Your task to perform on an android device: delete location history Image 0: 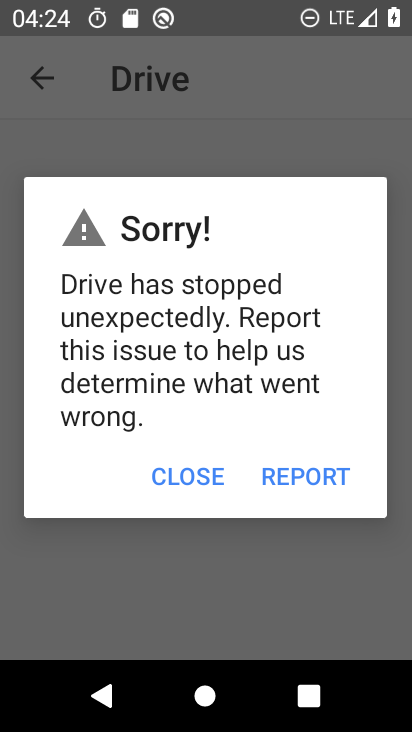
Step 0: click (197, 494)
Your task to perform on an android device: delete location history Image 1: 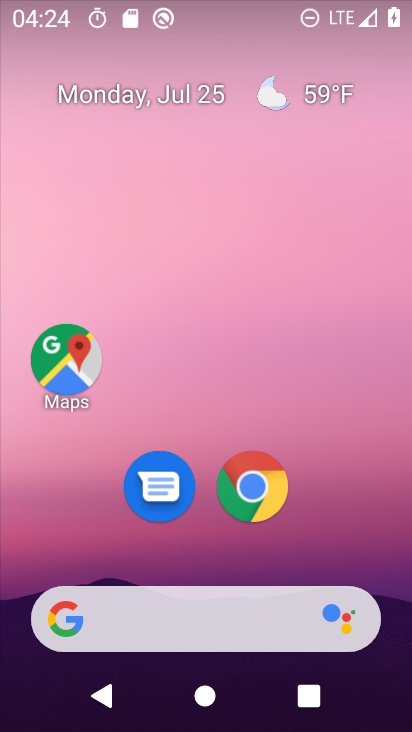
Step 1: press back button
Your task to perform on an android device: delete location history Image 2: 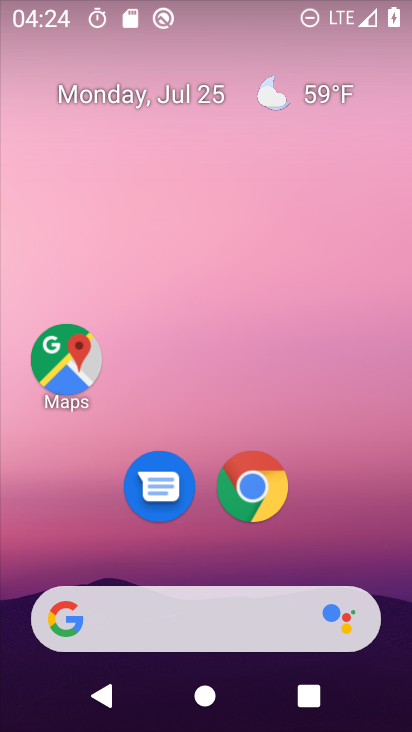
Step 2: click (60, 358)
Your task to perform on an android device: delete location history Image 3: 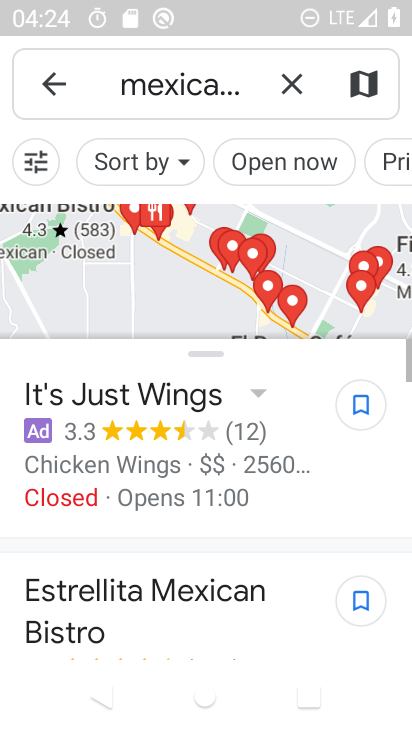
Step 3: click (57, 86)
Your task to perform on an android device: delete location history Image 4: 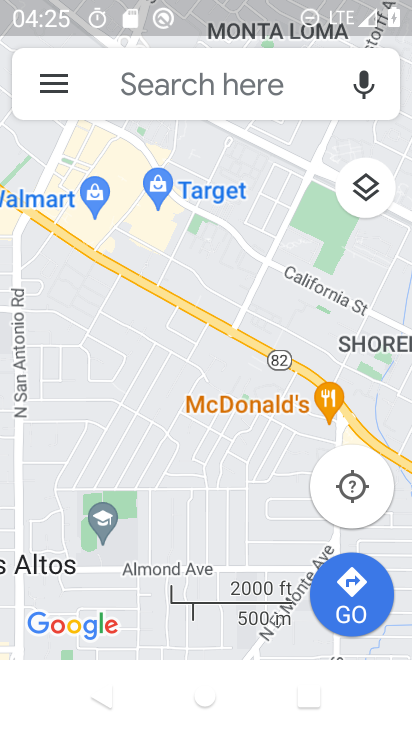
Step 4: click (62, 78)
Your task to perform on an android device: delete location history Image 5: 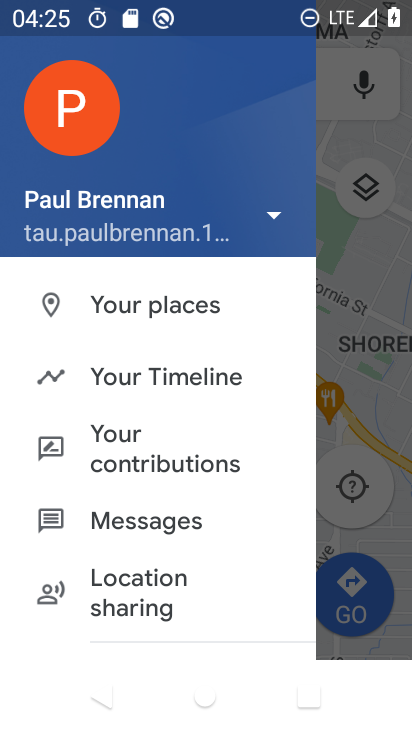
Step 5: click (168, 376)
Your task to perform on an android device: delete location history Image 6: 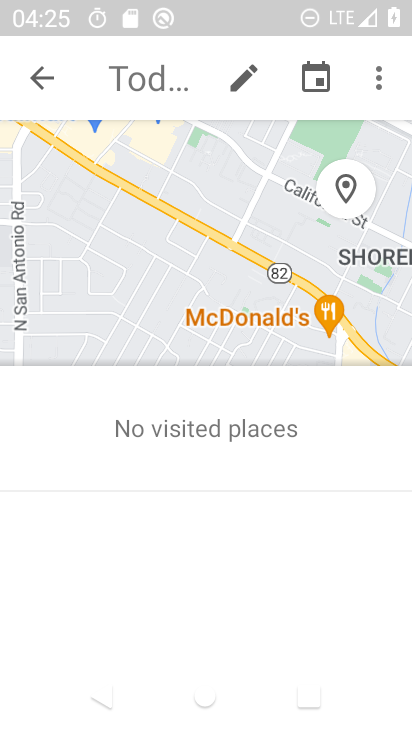
Step 6: click (368, 81)
Your task to perform on an android device: delete location history Image 7: 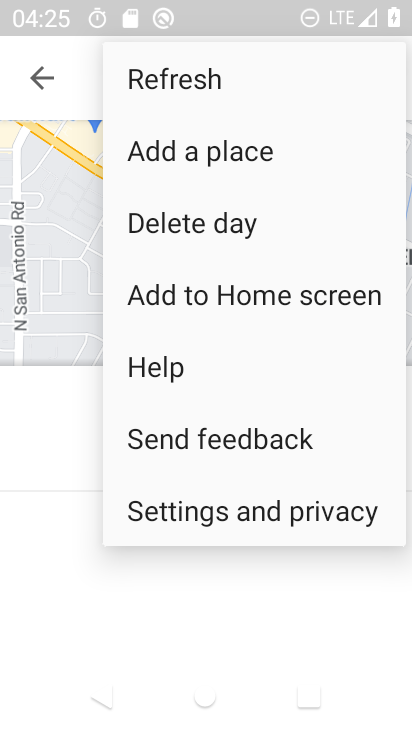
Step 7: click (189, 508)
Your task to perform on an android device: delete location history Image 8: 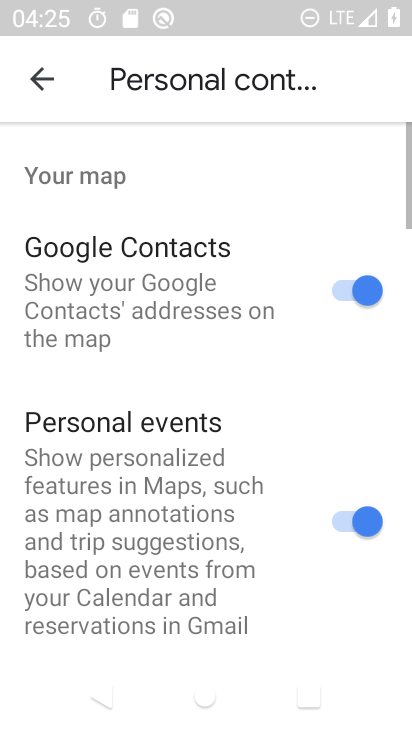
Step 8: drag from (142, 625) to (315, 6)
Your task to perform on an android device: delete location history Image 9: 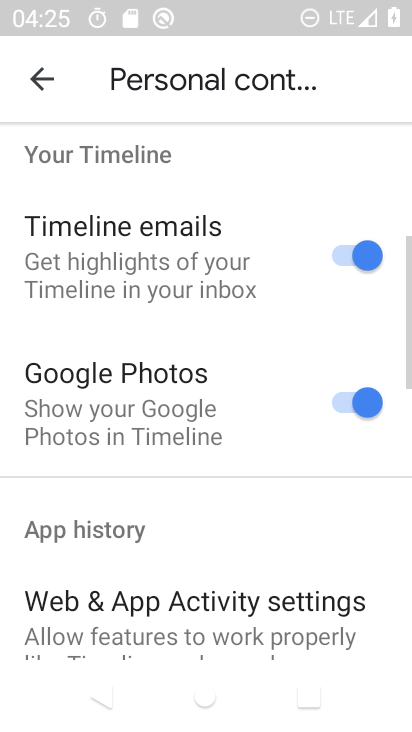
Step 9: drag from (162, 572) to (298, 35)
Your task to perform on an android device: delete location history Image 10: 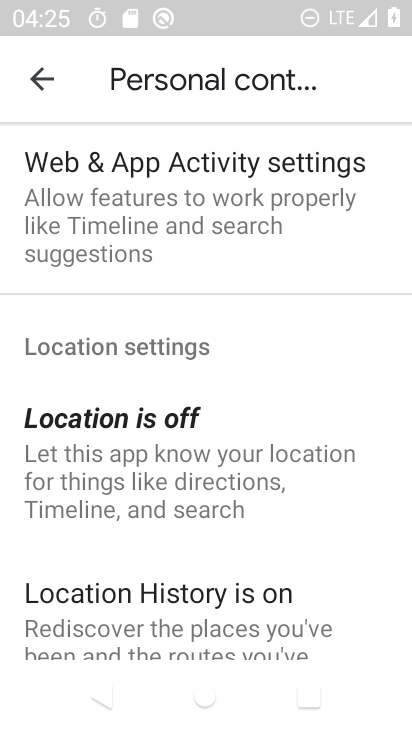
Step 10: drag from (153, 528) to (273, 52)
Your task to perform on an android device: delete location history Image 11: 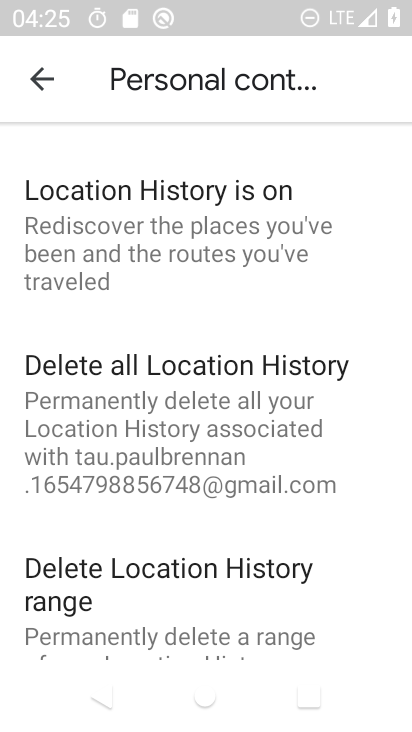
Step 11: click (106, 389)
Your task to perform on an android device: delete location history Image 12: 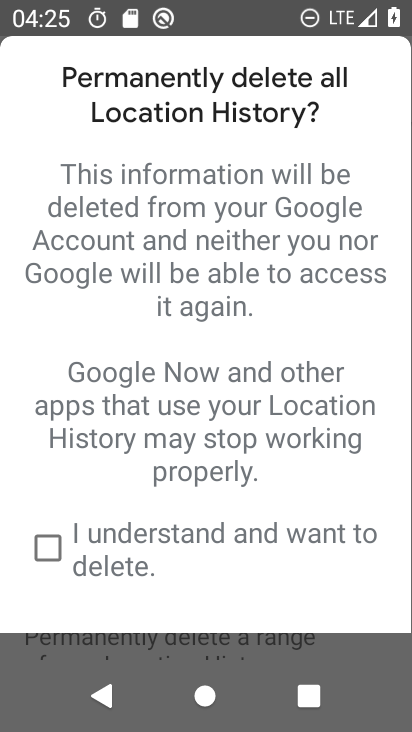
Step 12: click (57, 574)
Your task to perform on an android device: delete location history Image 13: 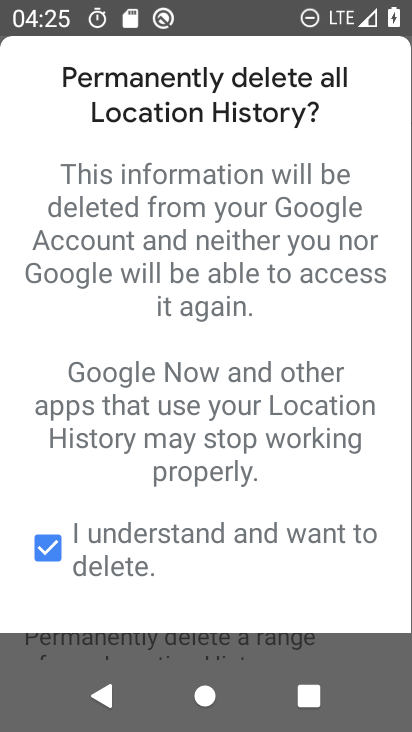
Step 13: task complete